Your task to perform on an android device: turn on notifications settings in the gmail app Image 0: 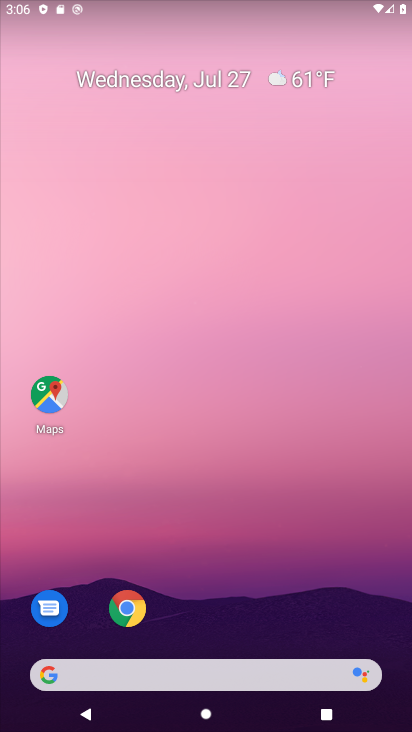
Step 0: drag from (230, 719) to (230, 158)
Your task to perform on an android device: turn on notifications settings in the gmail app Image 1: 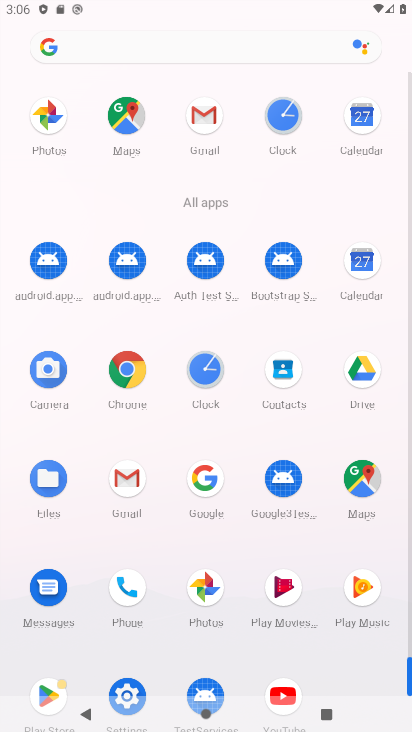
Step 1: click (129, 481)
Your task to perform on an android device: turn on notifications settings in the gmail app Image 2: 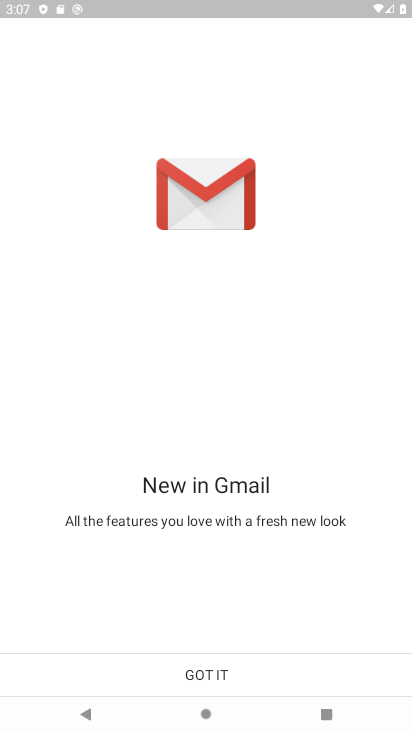
Step 2: click (199, 667)
Your task to perform on an android device: turn on notifications settings in the gmail app Image 3: 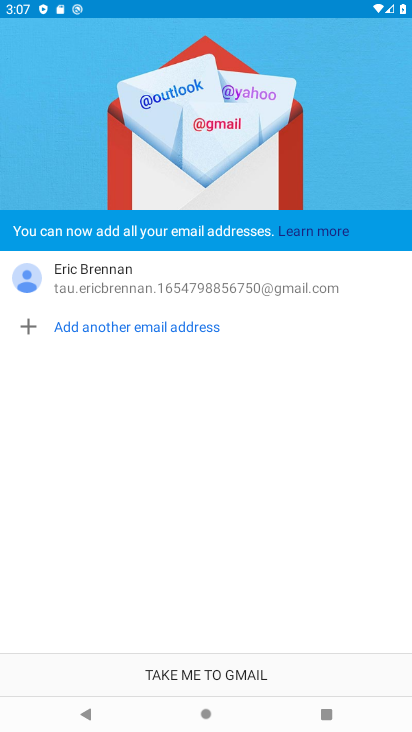
Step 3: click (229, 668)
Your task to perform on an android device: turn on notifications settings in the gmail app Image 4: 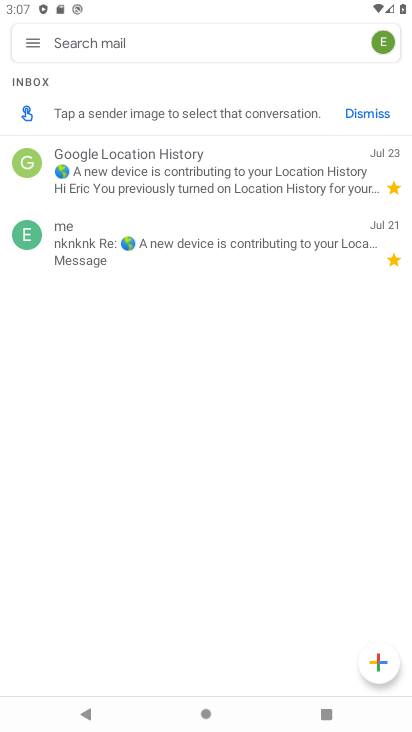
Step 4: click (33, 46)
Your task to perform on an android device: turn on notifications settings in the gmail app Image 5: 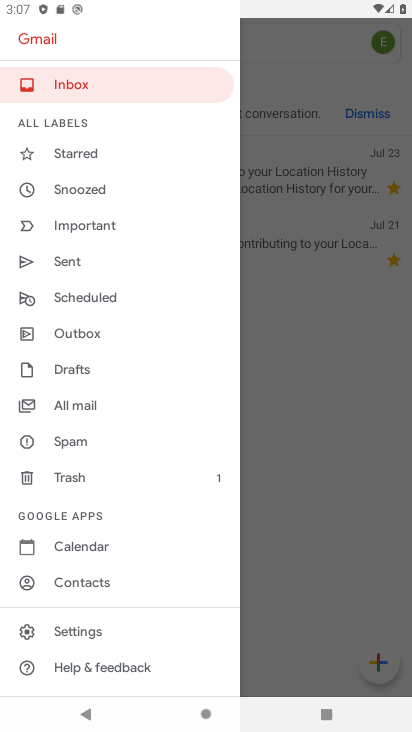
Step 5: click (92, 629)
Your task to perform on an android device: turn on notifications settings in the gmail app Image 6: 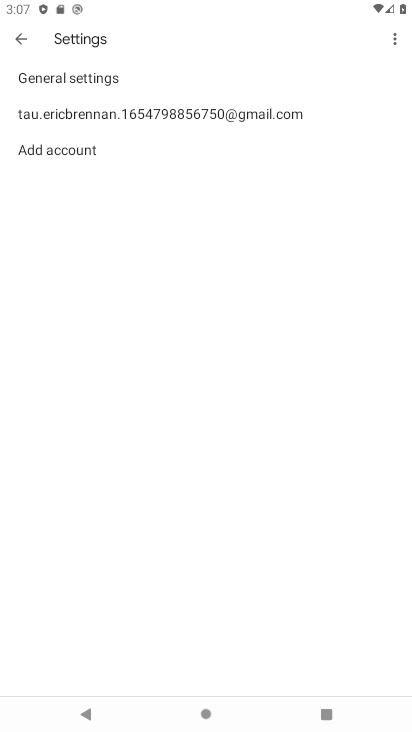
Step 6: click (157, 110)
Your task to perform on an android device: turn on notifications settings in the gmail app Image 7: 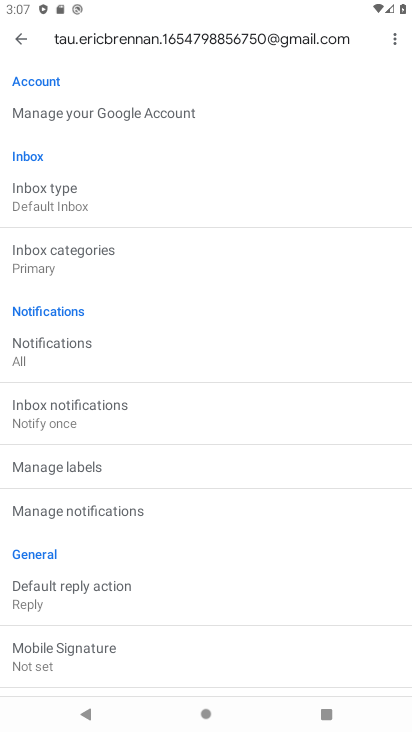
Step 7: task complete